Your task to perform on an android device: turn notification dots on Image 0: 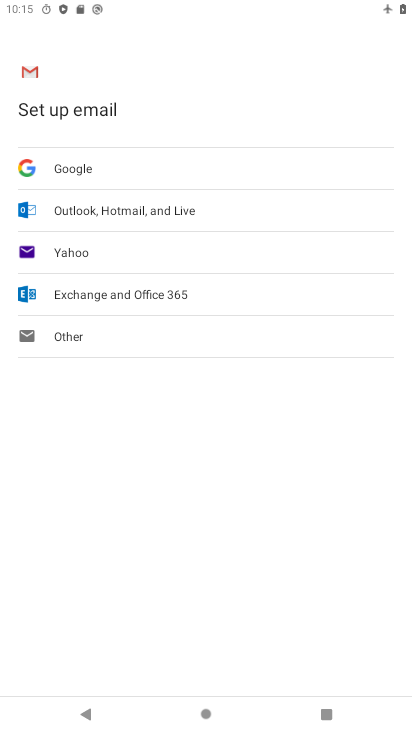
Step 0: press back button
Your task to perform on an android device: turn notification dots on Image 1: 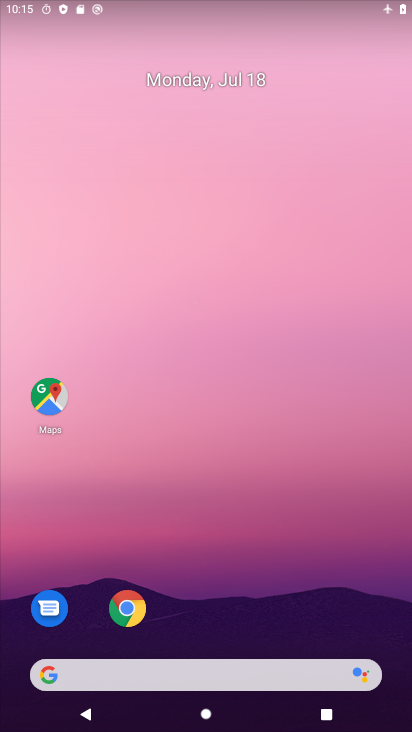
Step 1: drag from (269, 277) to (268, 193)
Your task to perform on an android device: turn notification dots on Image 2: 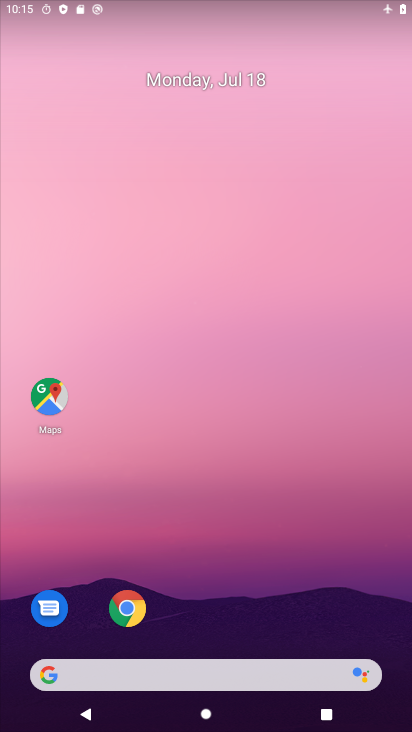
Step 2: drag from (185, 392) to (160, 195)
Your task to perform on an android device: turn notification dots on Image 3: 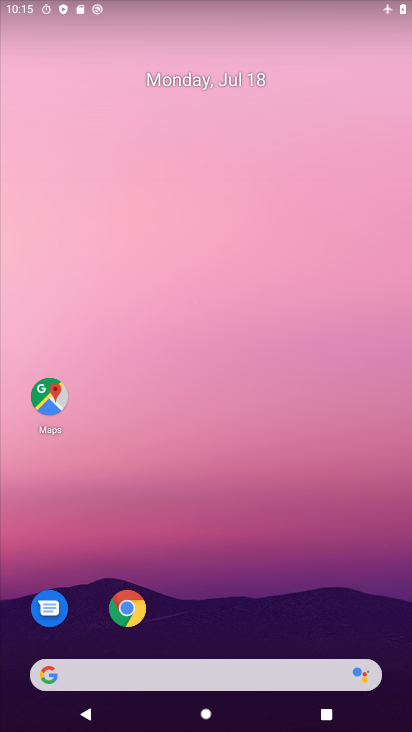
Step 3: drag from (228, 480) to (298, 132)
Your task to perform on an android device: turn notification dots on Image 4: 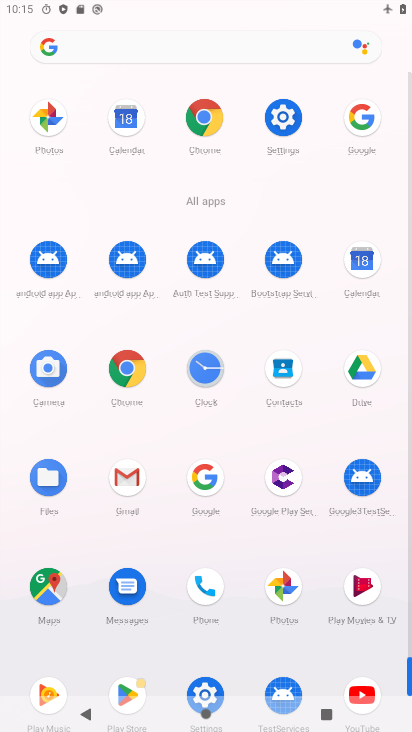
Step 4: click (276, 106)
Your task to perform on an android device: turn notification dots on Image 5: 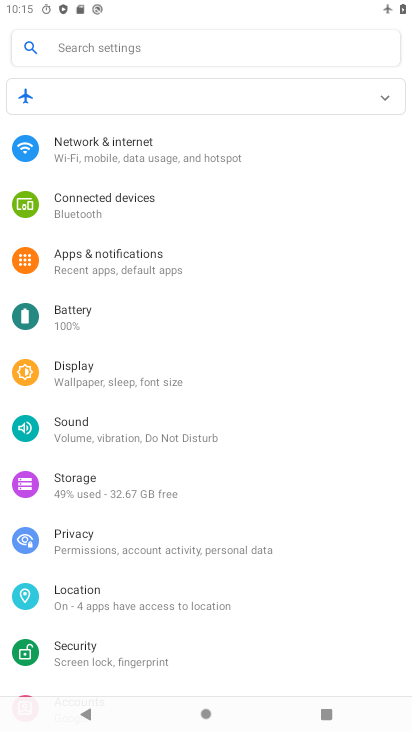
Step 5: click (120, 263)
Your task to perform on an android device: turn notification dots on Image 6: 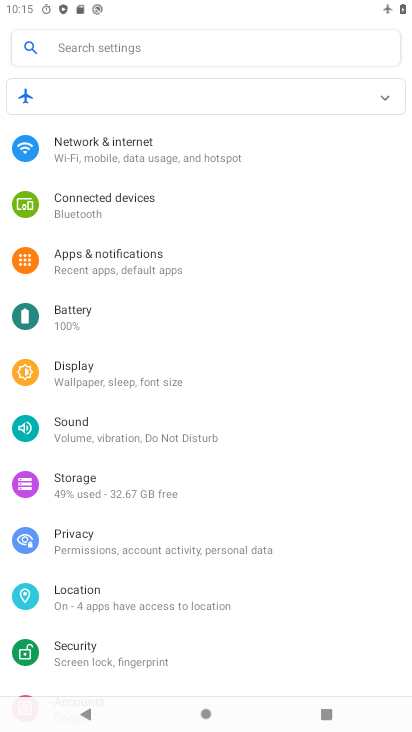
Step 6: click (124, 264)
Your task to perform on an android device: turn notification dots on Image 7: 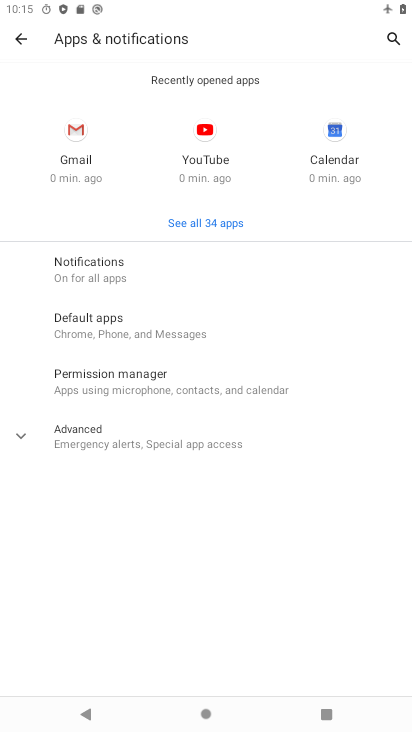
Step 7: click (93, 277)
Your task to perform on an android device: turn notification dots on Image 8: 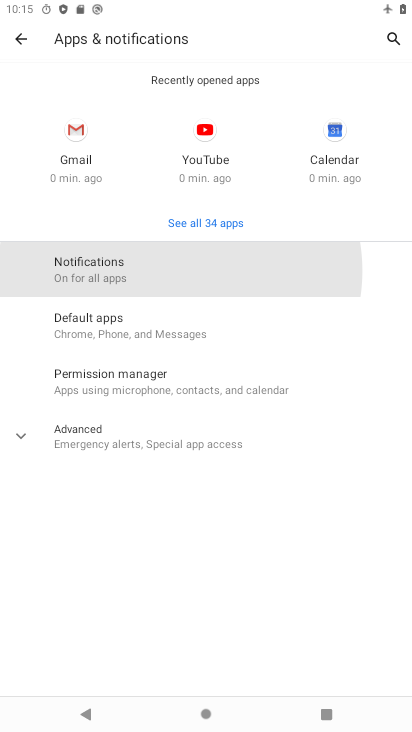
Step 8: click (106, 262)
Your task to perform on an android device: turn notification dots on Image 9: 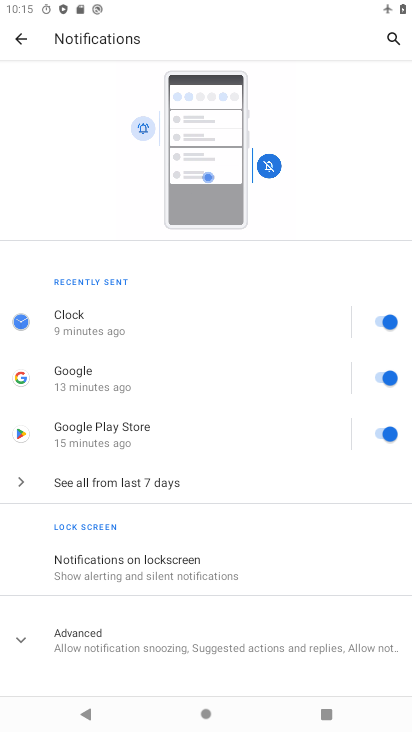
Step 9: drag from (228, 604) to (222, 310)
Your task to perform on an android device: turn notification dots on Image 10: 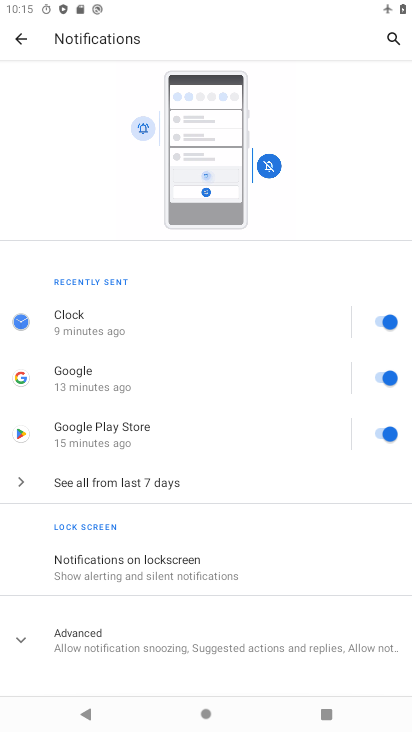
Step 10: click (92, 630)
Your task to perform on an android device: turn notification dots on Image 11: 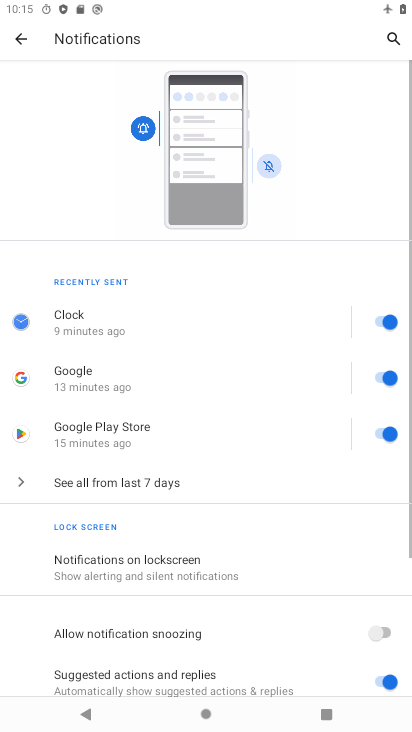
Step 11: task complete